Your task to perform on an android device: Open Chrome and go to the settings page Image 0: 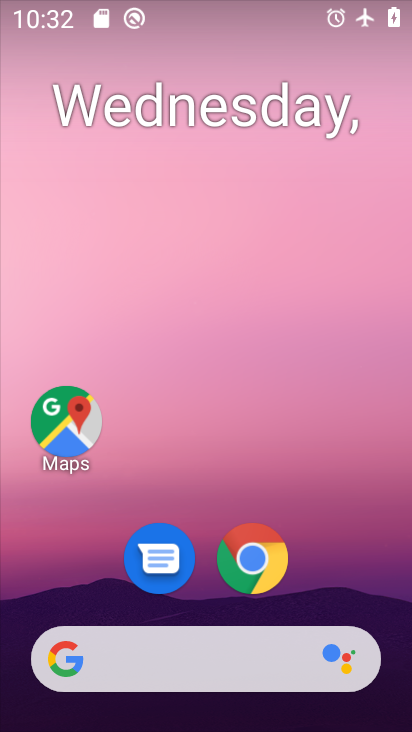
Step 0: drag from (342, 589) to (358, 122)
Your task to perform on an android device: Open Chrome and go to the settings page Image 1: 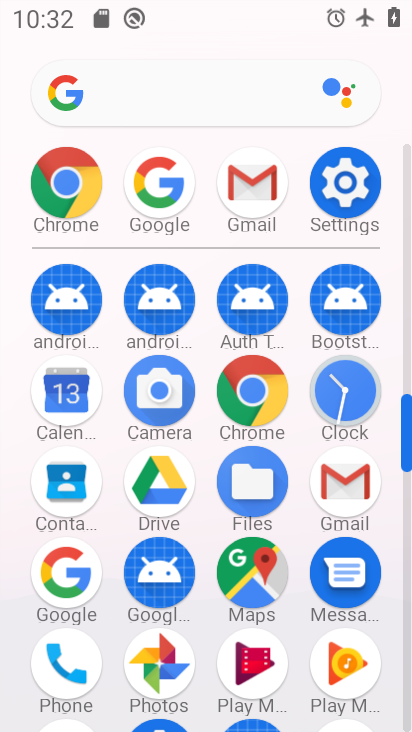
Step 1: click (247, 400)
Your task to perform on an android device: Open Chrome and go to the settings page Image 2: 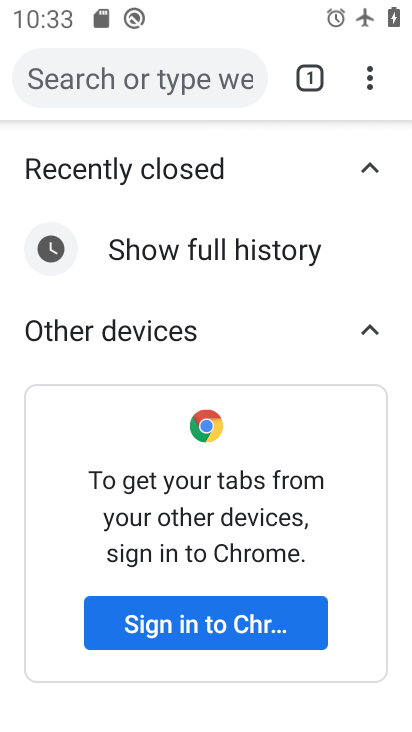
Step 2: click (370, 84)
Your task to perform on an android device: Open Chrome and go to the settings page Image 3: 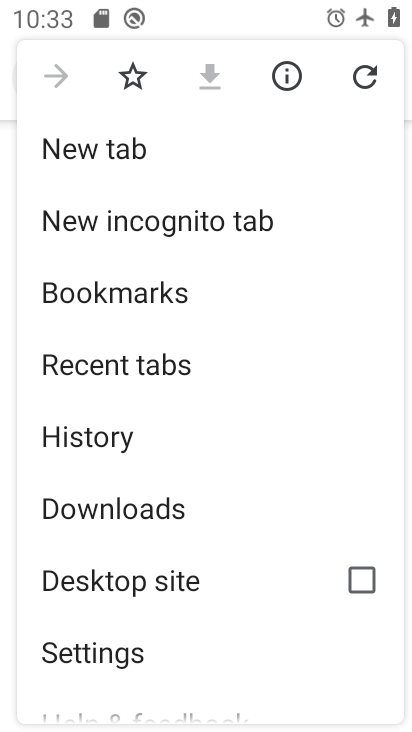
Step 3: drag from (326, 318) to (326, 212)
Your task to perform on an android device: Open Chrome and go to the settings page Image 4: 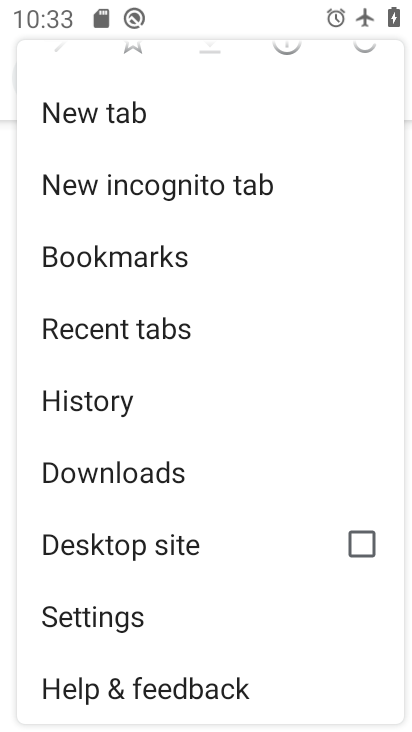
Step 4: click (135, 620)
Your task to perform on an android device: Open Chrome and go to the settings page Image 5: 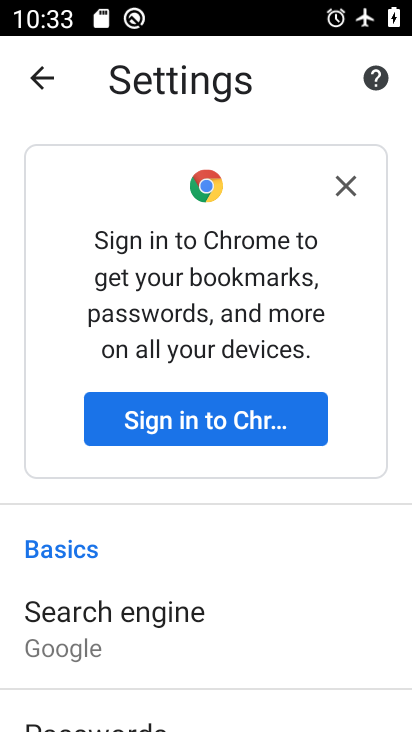
Step 5: task complete